Your task to perform on an android device: Go to Maps Image 0: 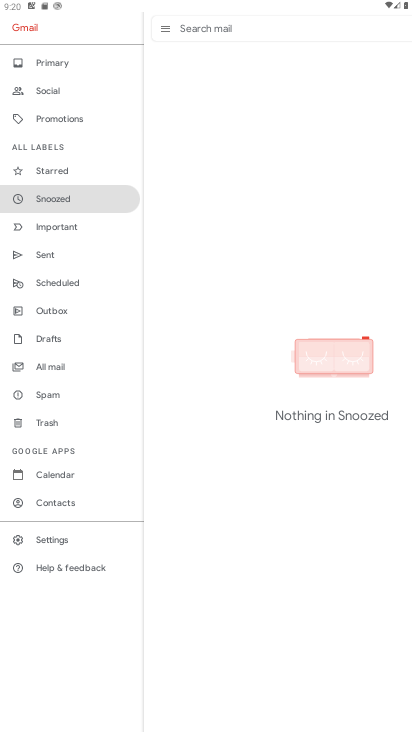
Step 0: press home button
Your task to perform on an android device: Go to Maps Image 1: 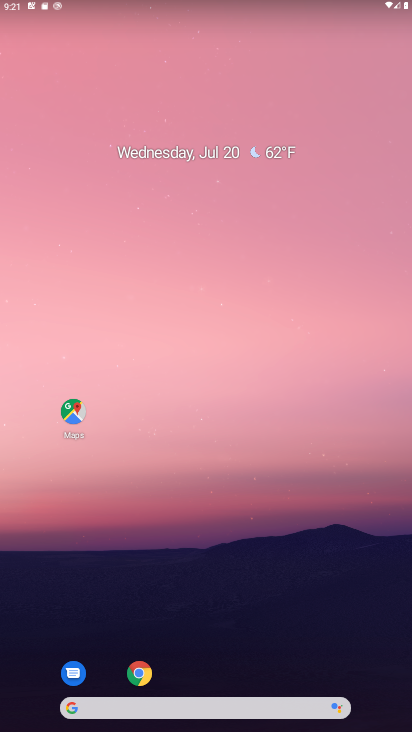
Step 1: click (78, 404)
Your task to perform on an android device: Go to Maps Image 2: 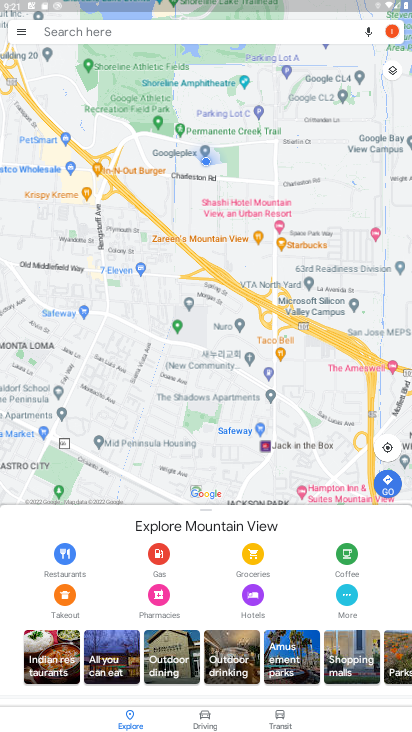
Step 2: task complete